Your task to perform on an android device: Turn off the flashlight Image 0: 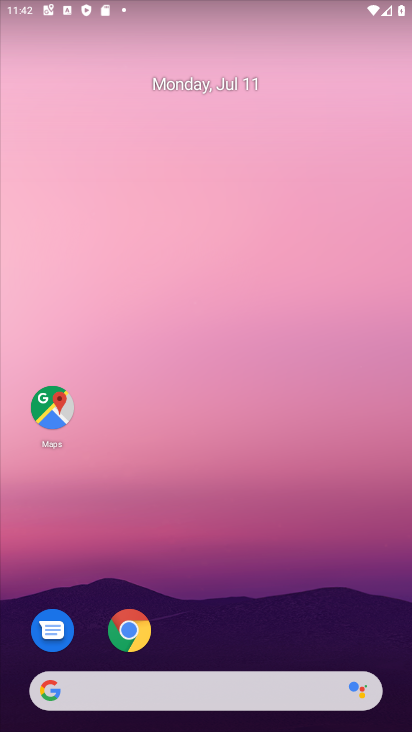
Step 0: drag from (321, 633) to (263, 194)
Your task to perform on an android device: Turn off the flashlight Image 1: 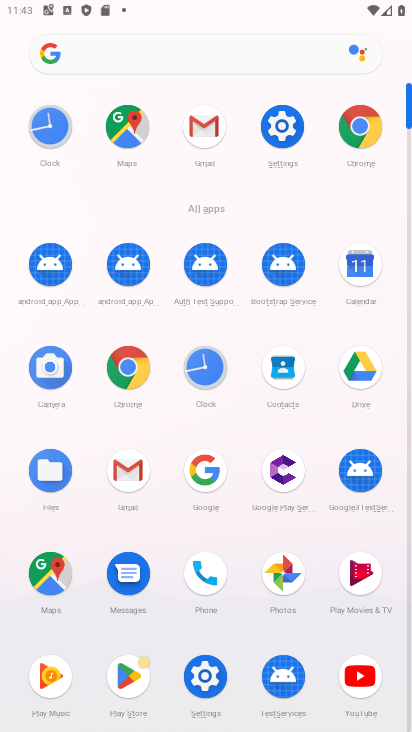
Step 1: drag from (221, 7) to (235, 439)
Your task to perform on an android device: Turn off the flashlight Image 2: 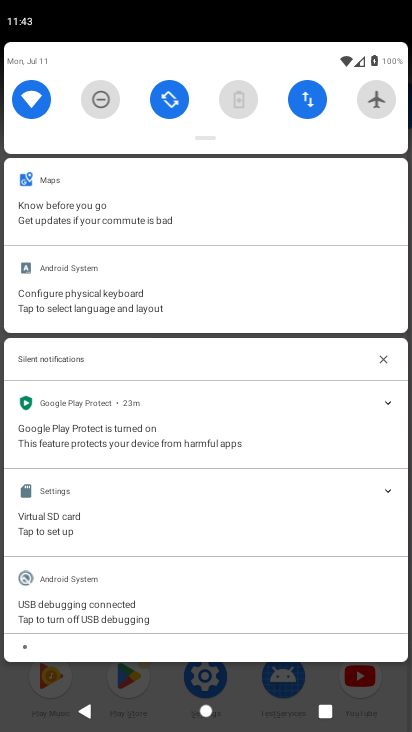
Step 2: drag from (216, 138) to (209, 409)
Your task to perform on an android device: Turn off the flashlight Image 3: 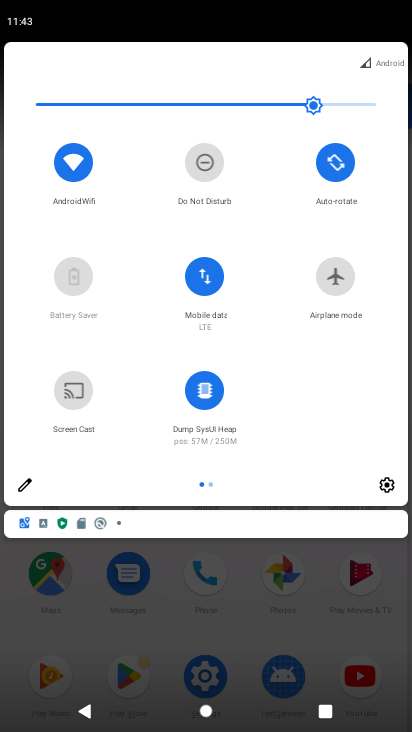
Step 3: click (19, 480)
Your task to perform on an android device: Turn off the flashlight Image 4: 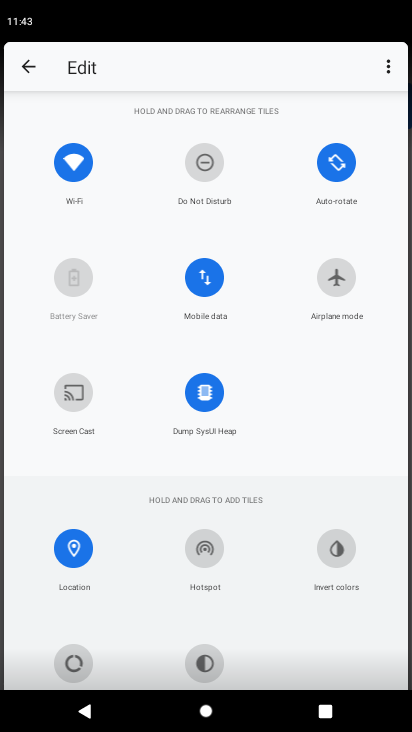
Step 4: task complete